Your task to perform on an android device: change the clock display to digital Image 0: 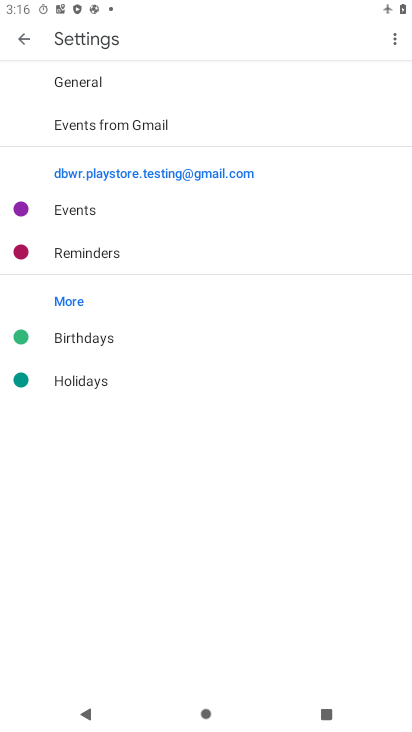
Step 0: drag from (288, 542) to (345, 315)
Your task to perform on an android device: change the clock display to digital Image 1: 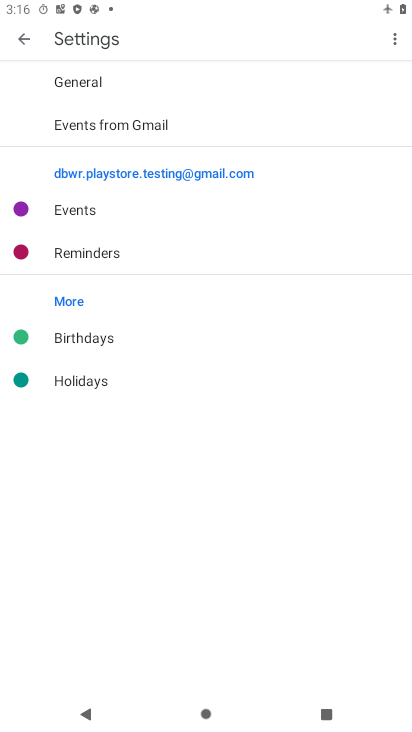
Step 1: press home button
Your task to perform on an android device: change the clock display to digital Image 2: 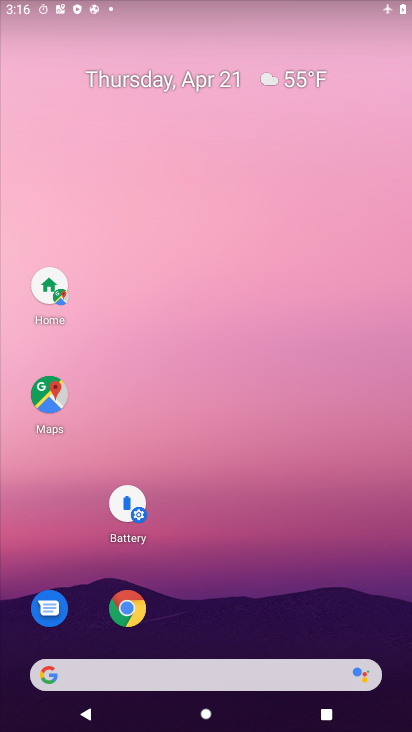
Step 2: drag from (233, 521) to (318, 15)
Your task to perform on an android device: change the clock display to digital Image 3: 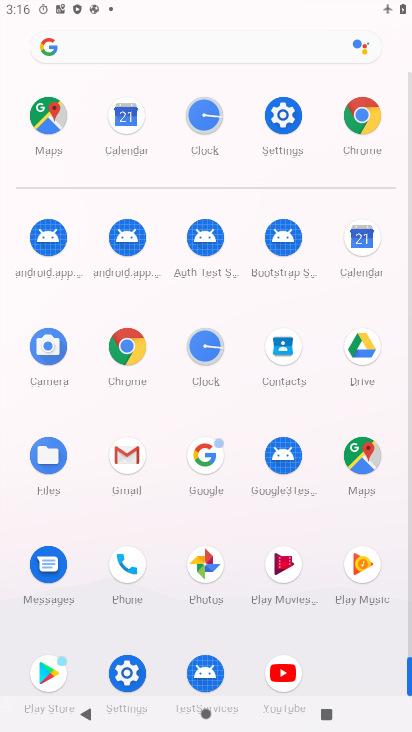
Step 3: click (189, 132)
Your task to perform on an android device: change the clock display to digital Image 4: 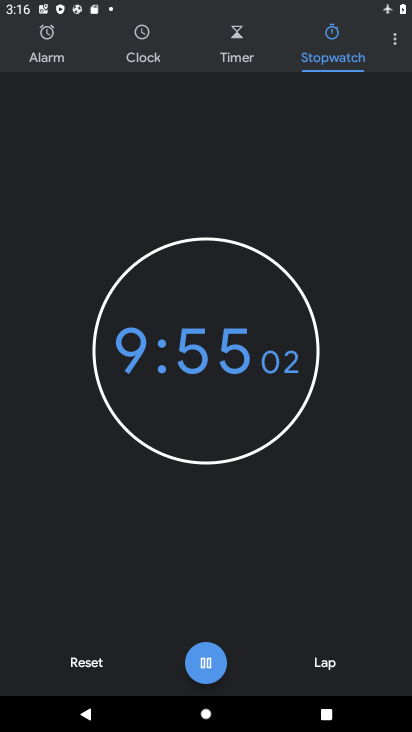
Step 4: click (402, 47)
Your task to perform on an android device: change the clock display to digital Image 5: 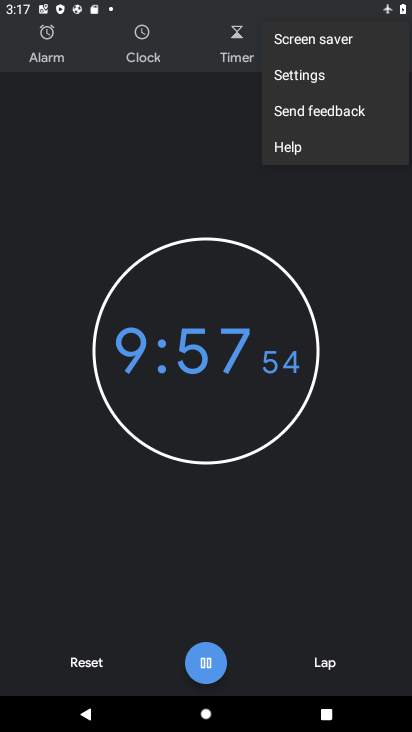
Step 5: click (313, 81)
Your task to perform on an android device: change the clock display to digital Image 6: 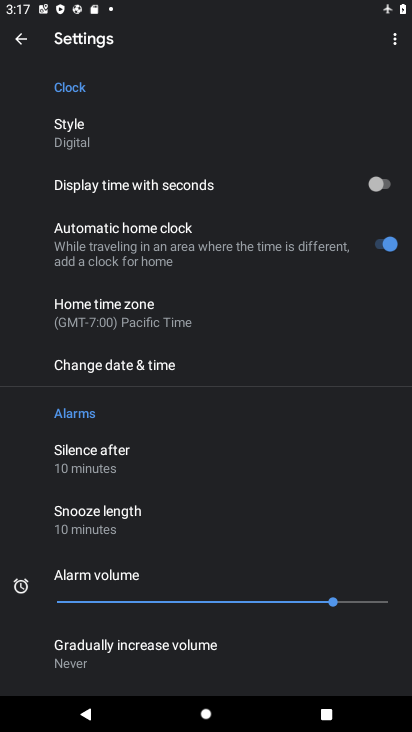
Step 6: click (105, 131)
Your task to perform on an android device: change the clock display to digital Image 7: 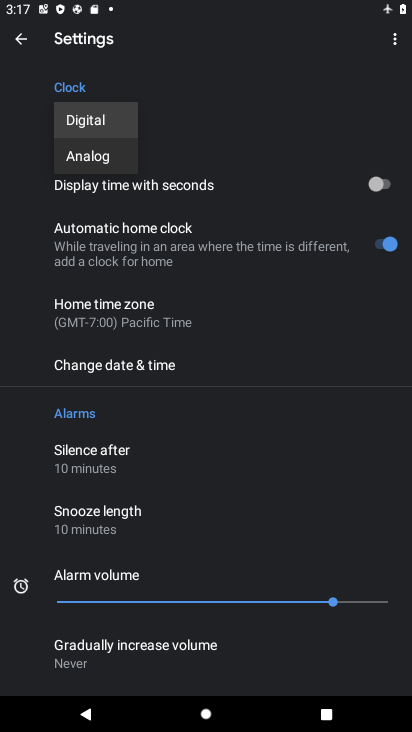
Step 7: click (220, 137)
Your task to perform on an android device: change the clock display to digital Image 8: 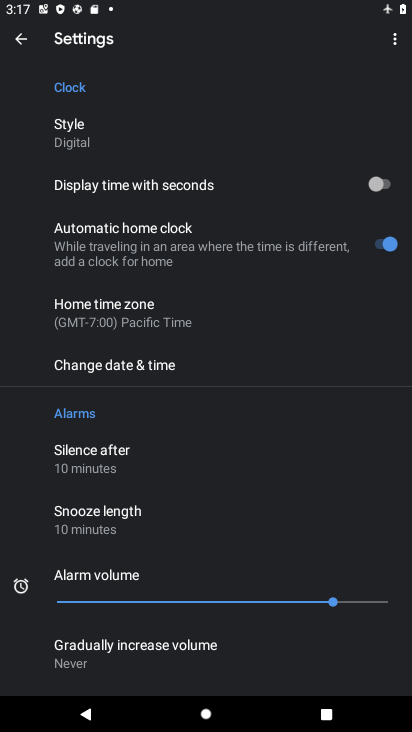
Step 8: click (88, 137)
Your task to perform on an android device: change the clock display to digital Image 9: 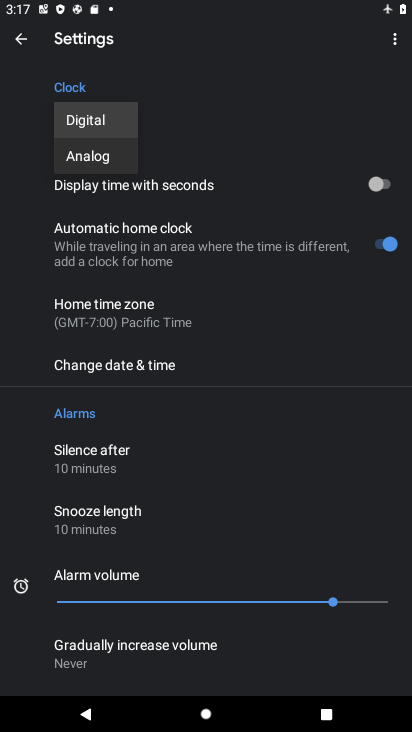
Step 9: click (206, 125)
Your task to perform on an android device: change the clock display to digital Image 10: 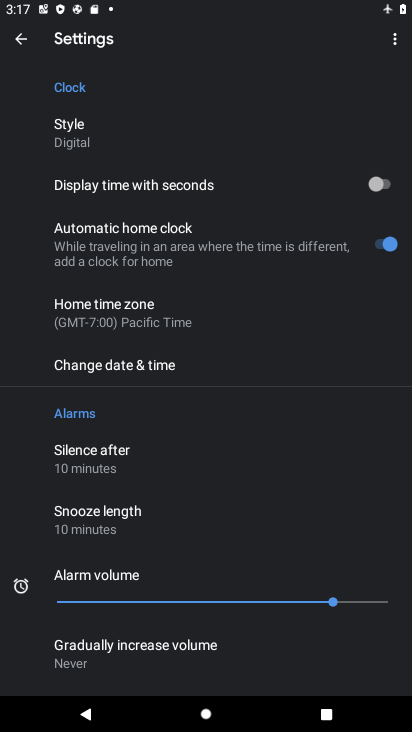
Step 10: task complete